Your task to perform on an android device: turn on notifications settings in the gmail app Image 0: 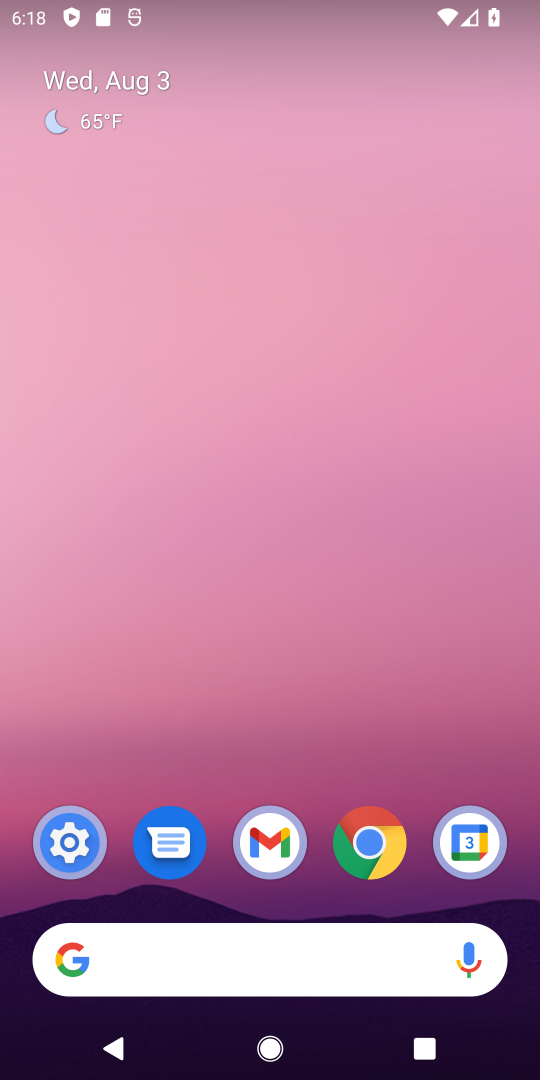
Step 0: click (259, 837)
Your task to perform on an android device: turn on notifications settings in the gmail app Image 1: 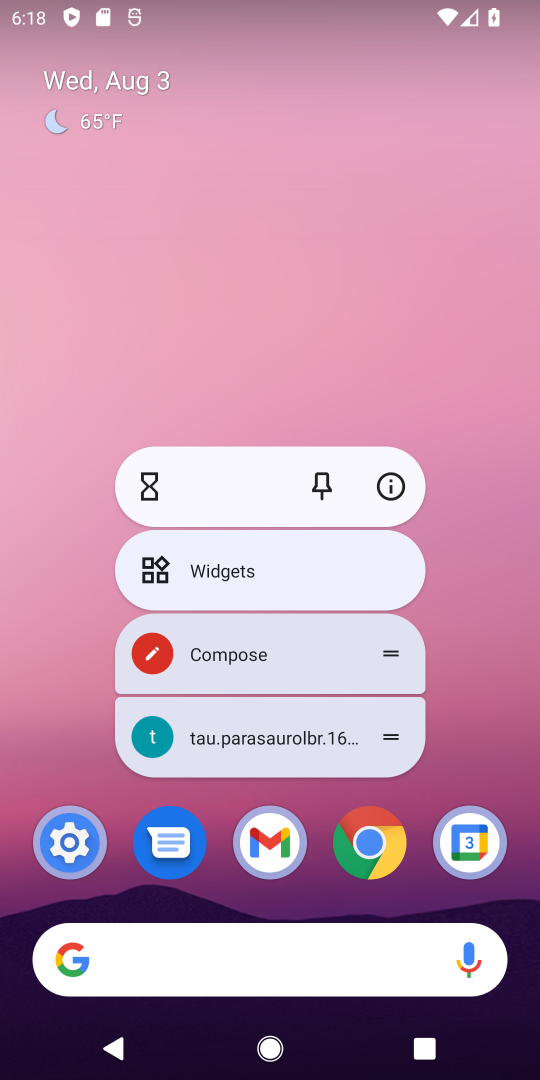
Step 1: click (393, 487)
Your task to perform on an android device: turn on notifications settings in the gmail app Image 2: 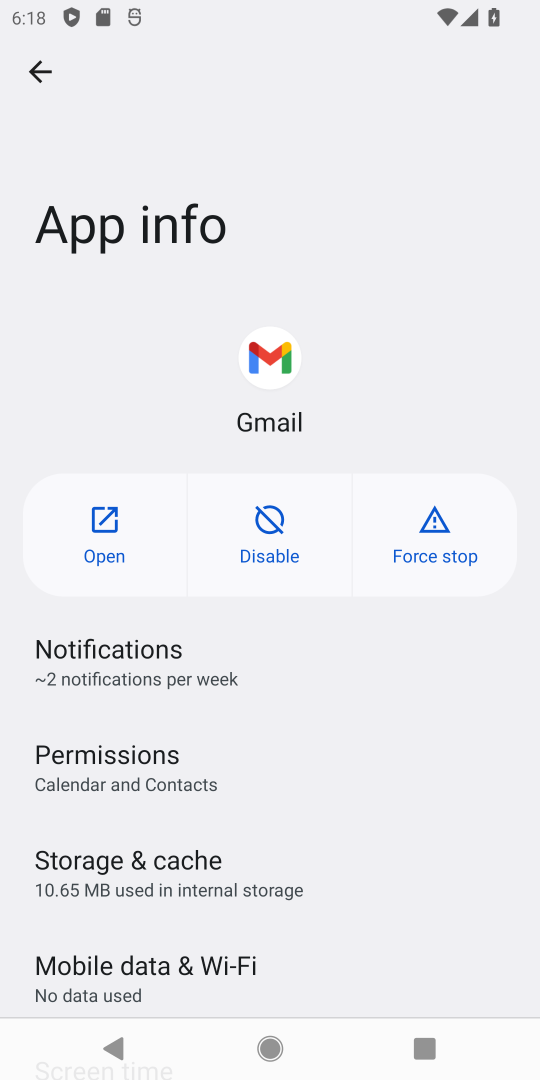
Step 2: click (296, 624)
Your task to perform on an android device: turn on notifications settings in the gmail app Image 3: 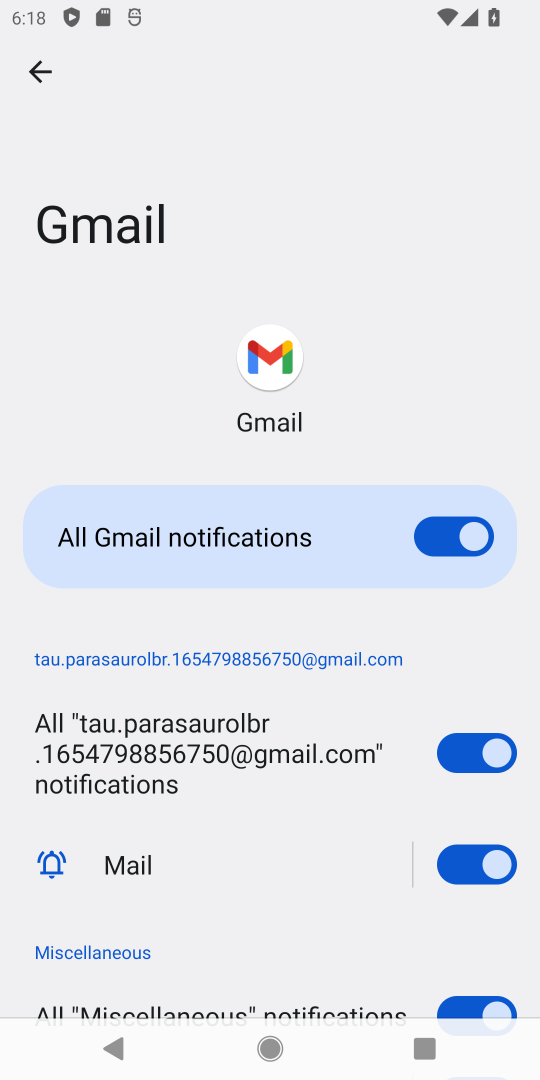
Step 3: task complete